Your task to perform on an android device: Go to settings Image 0: 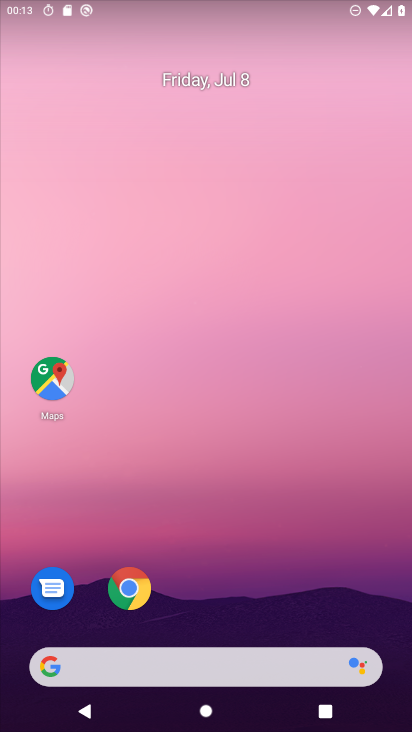
Step 0: drag from (301, 584) to (247, 90)
Your task to perform on an android device: Go to settings Image 1: 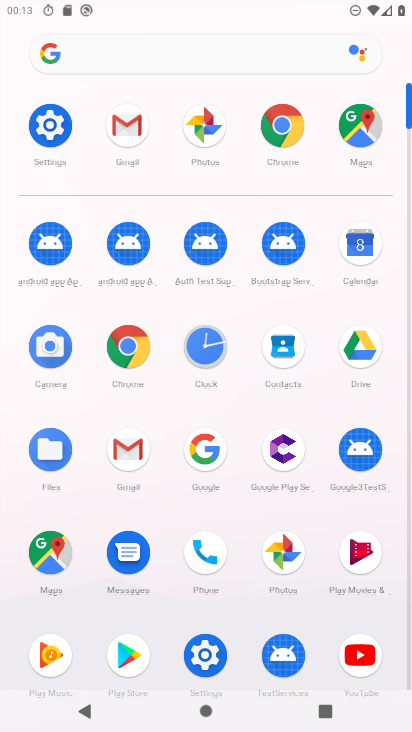
Step 1: click (50, 117)
Your task to perform on an android device: Go to settings Image 2: 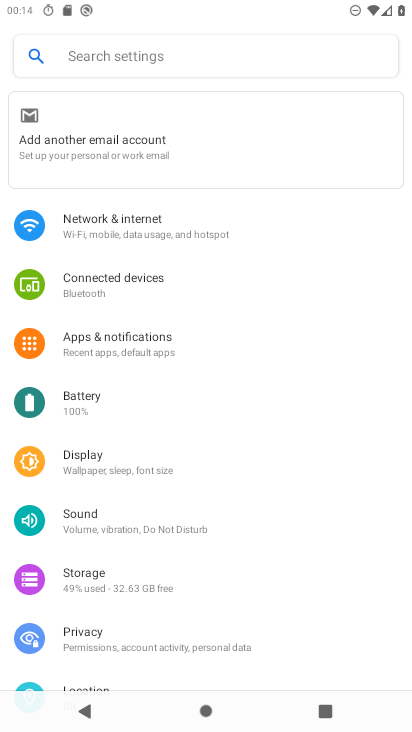
Step 2: task complete